Your task to perform on an android device: Open accessibility settings Image 0: 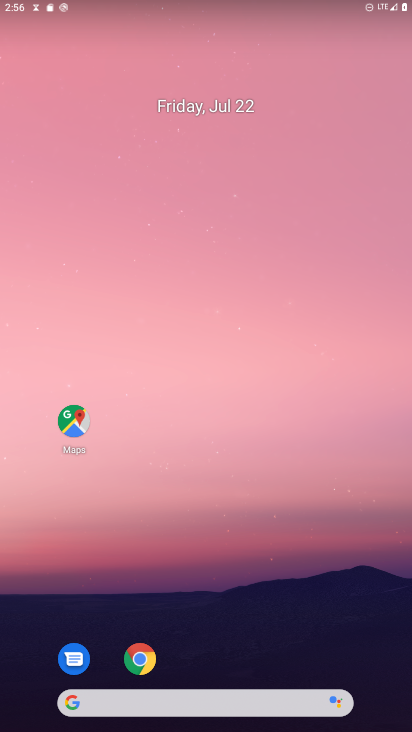
Step 0: drag from (284, 613) to (192, 8)
Your task to perform on an android device: Open accessibility settings Image 1: 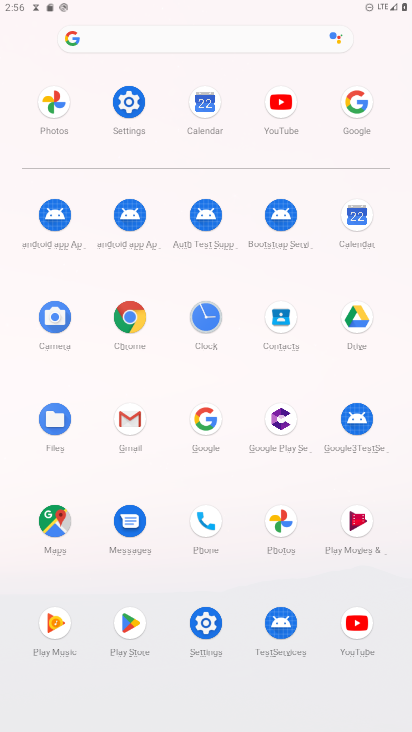
Step 1: click (119, 97)
Your task to perform on an android device: Open accessibility settings Image 2: 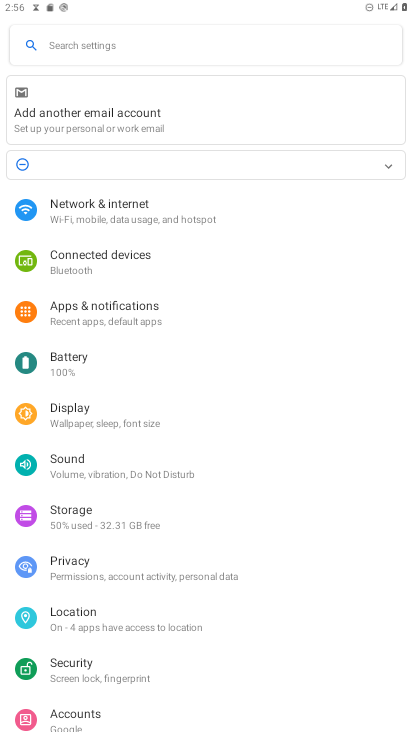
Step 2: drag from (112, 590) to (206, 139)
Your task to perform on an android device: Open accessibility settings Image 3: 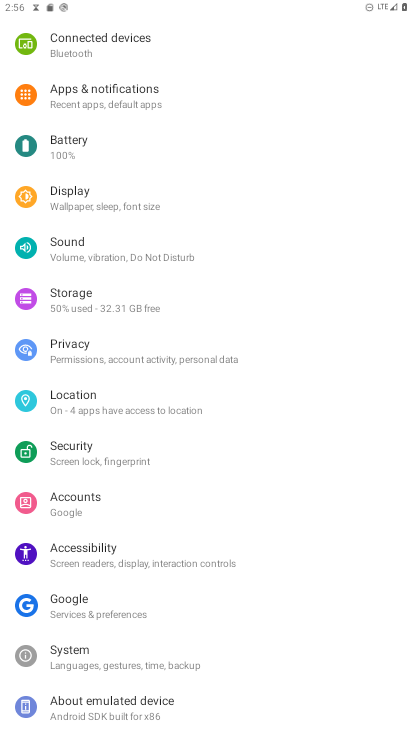
Step 3: click (122, 559)
Your task to perform on an android device: Open accessibility settings Image 4: 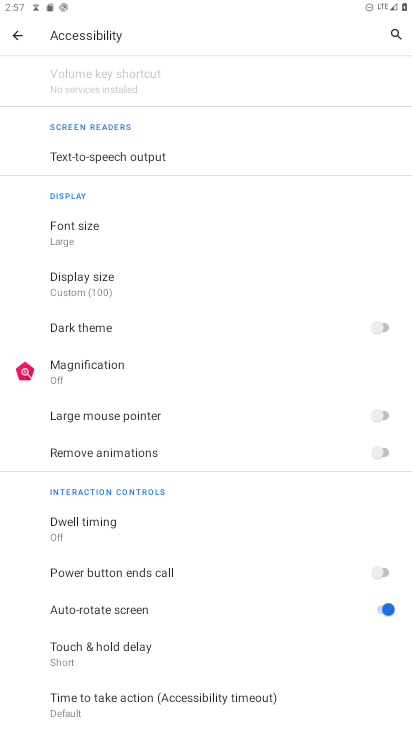
Step 4: task complete